Your task to perform on an android device: Open calendar and show me the fourth week of next month Image 0: 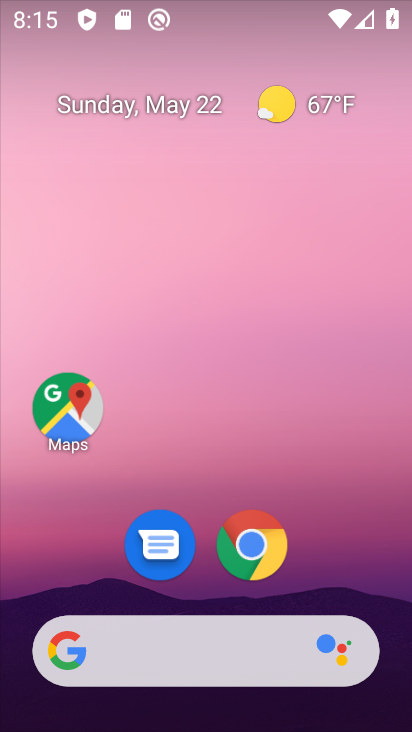
Step 0: drag from (360, 572) to (299, 171)
Your task to perform on an android device: Open calendar and show me the fourth week of next month Image 1: 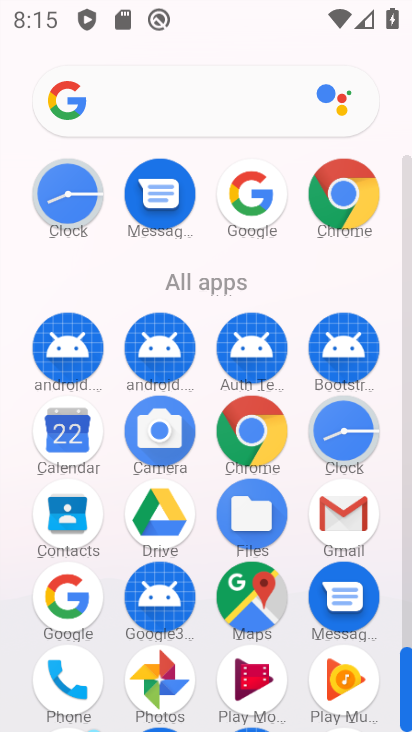
Step 1: click (93, 464)
Your task to perform on an android device: Open calendar and show me the fourth week of next month Image 2: 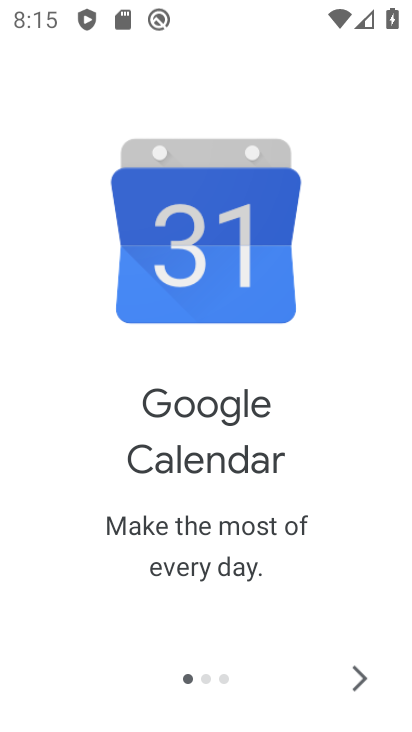
Step 2: click (358, 680)
Your task to perform on an android device: Open calendar and show me the fourth week of next month Image 3: 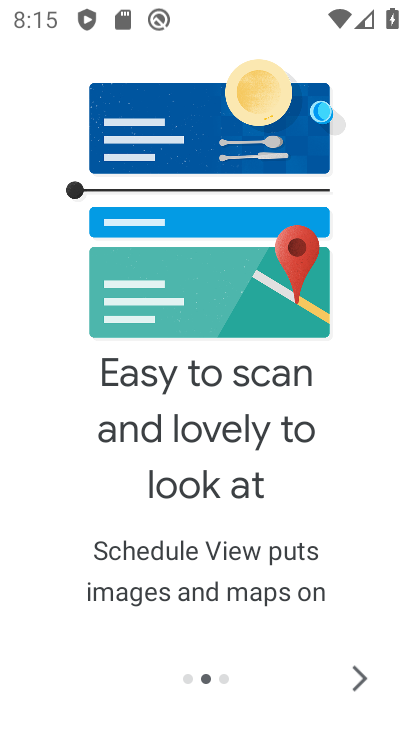
Step 3: click (358, 680)
Your task to perform on an android device: Open calendar and show me the fourth week of next month Image 4: 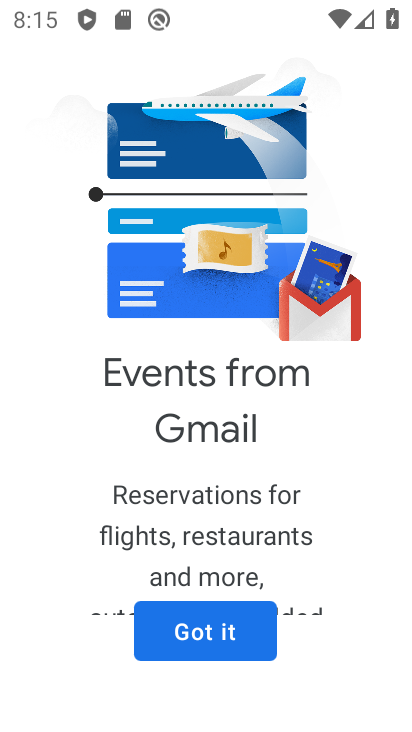
Step 4: click (255, 651)
Your task to perform on an android device: Open calendar and show me the fourth week of next month Image 5: 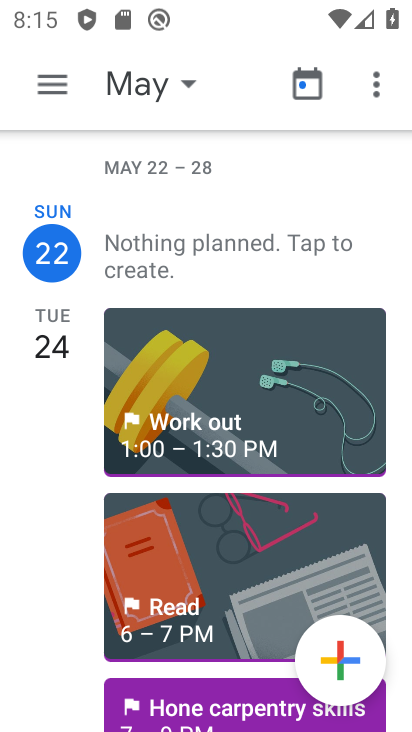
Step 5: click (77, 91)
Your task to perform on an android device: Open calendar and show me the fourth week of next month Image 6: 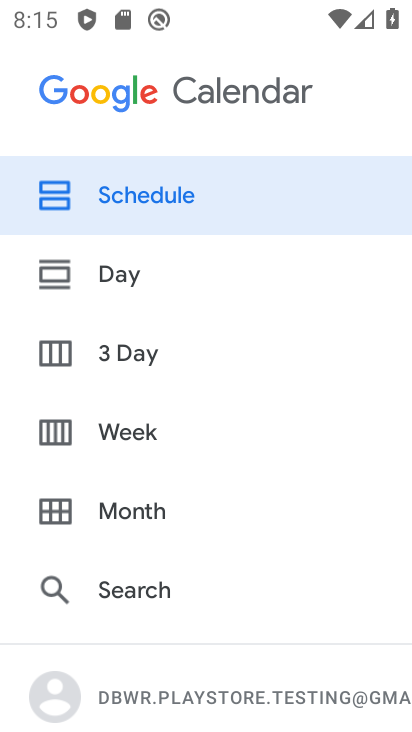
Step 6: click (144, 442)
Your task to perform on an android device: Open calendar and show me the fourth week of next month Image 7: 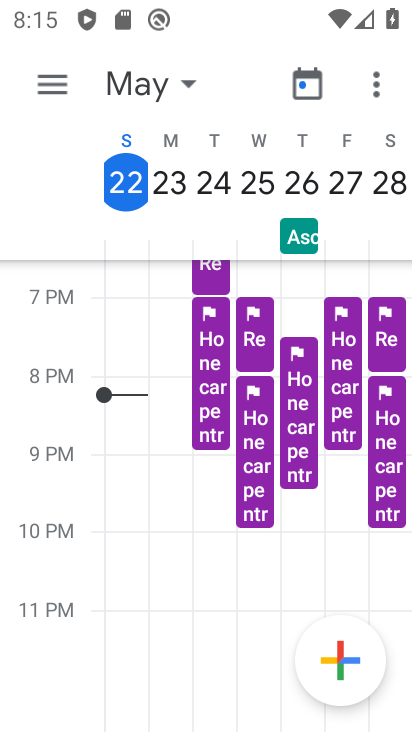
Step 7: click (163, 99)
Your task to perform on an android device: Open calendar and show me the fourth week of next month Image 8: 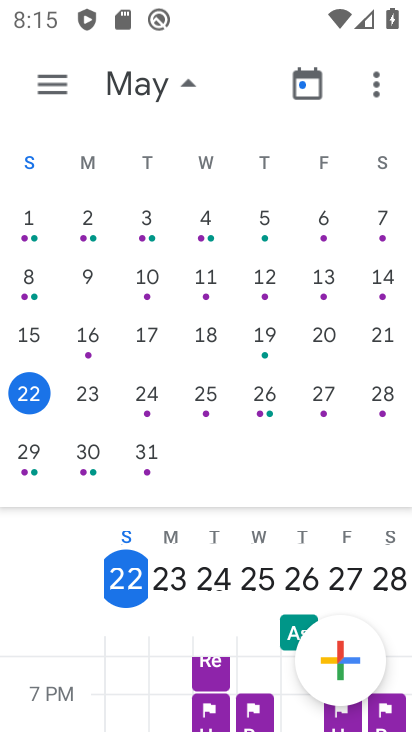
Step 8: click (177, 84)
Your task to perform on an android device: Open calendar and show me the fourth week of next month Image 9: 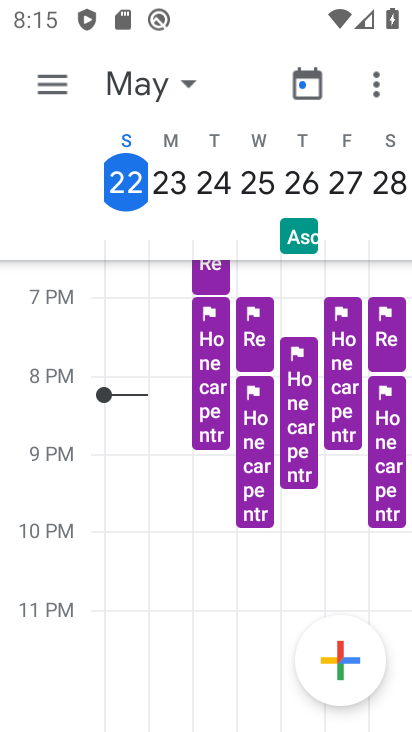
Step 9: click (177, 84)
Your task to perform on an android device: Open calendar and show me the fourth week of next month Image 10: 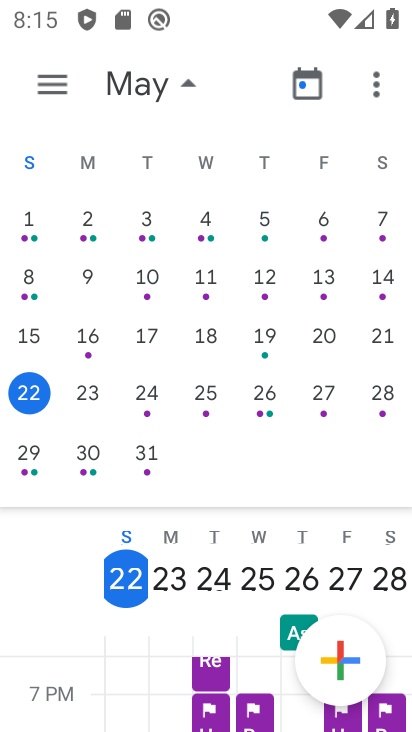
Step 10: drag from (390, 285) to (40, 275)
Your task to perform on an android device: Open calendar and show me the fourth week of next month Image 11: 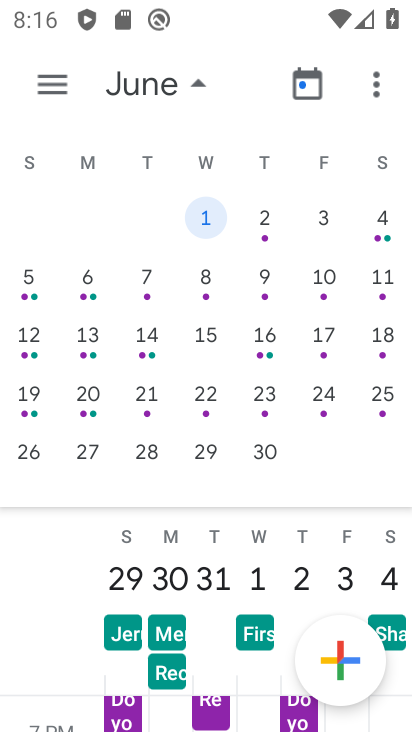
Step 11: click (147, 414)
Your task to perform on an android device: Open calendar and show me the fourth week of next month Image 12: 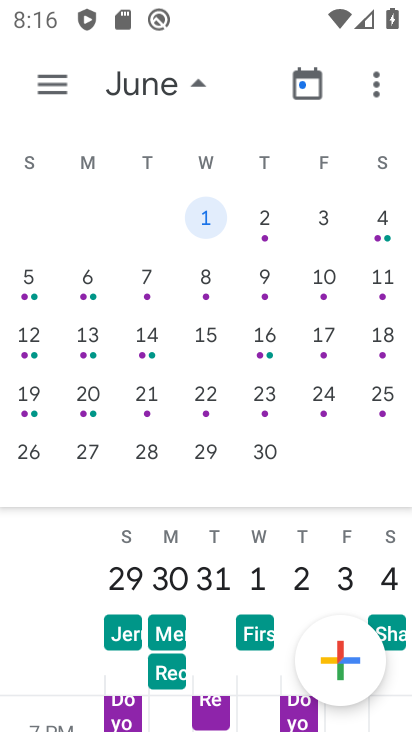
Step 12: click (143, 407)
Your task to perform on an android device: Open calendar and show me the fourth week of next month Image 13: 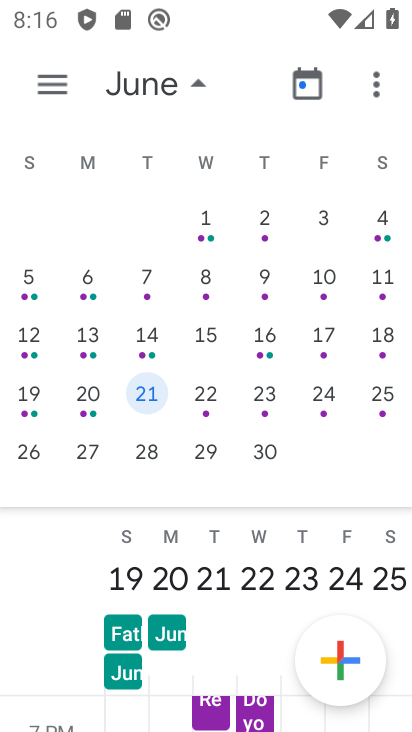
Step 13: click (144, 90)
Your task to perform on an android device: Open calendar and show me the fourth week of next month Image 14: 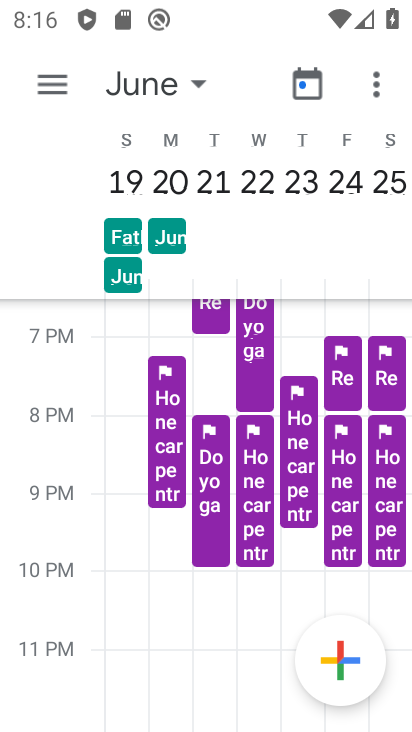
Step 14: task complete